Your task to perform on an android device: Check the settings for the Amazon Prime Video app Image 0: 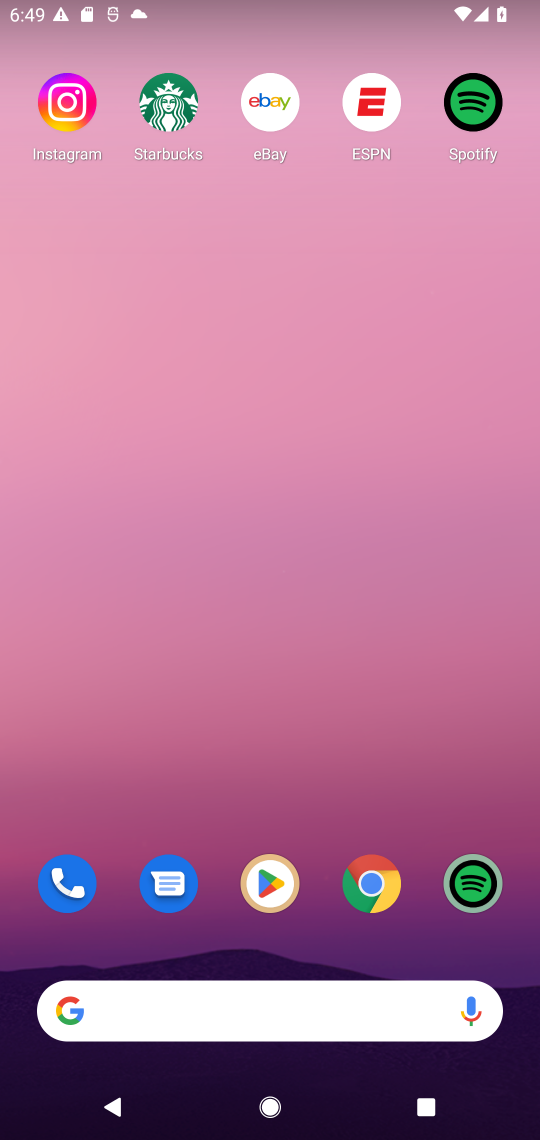
Step 0: drag from (384, 677) to (495, 191)
Your task to perform on an android device: Check the settings for the Amazon Prime Video app Image 1: 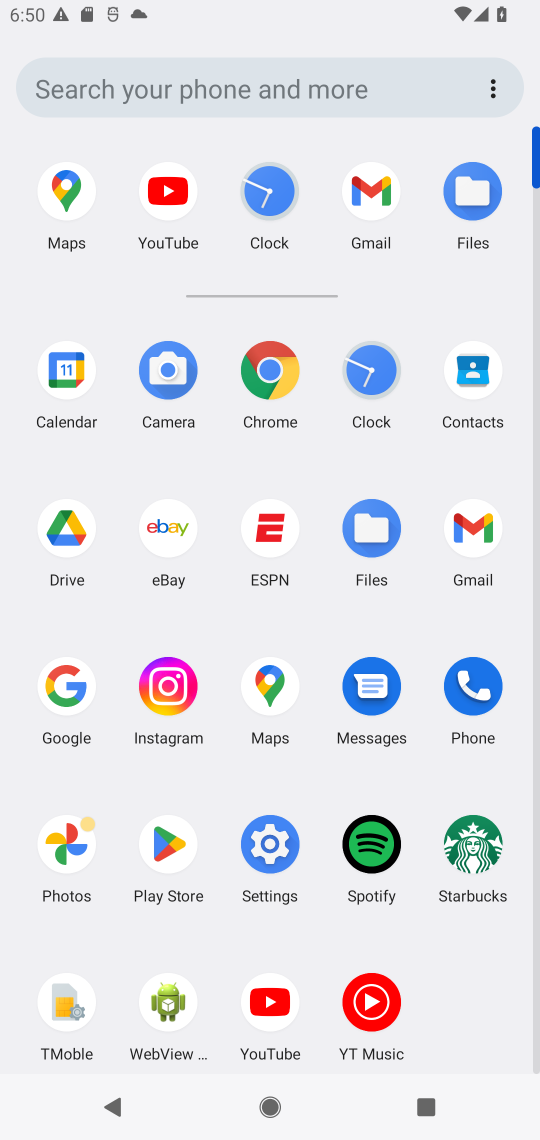
Step 1: task complete